Your task to perform on an android device: turn on wifi Image 0: 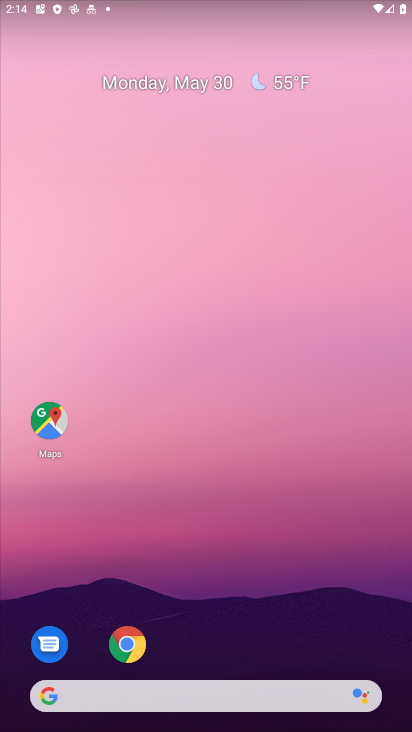
Step 0: drag from (304, 637) to (286, 142)
Your task to perform on an android device: turn on wifi Image 1: 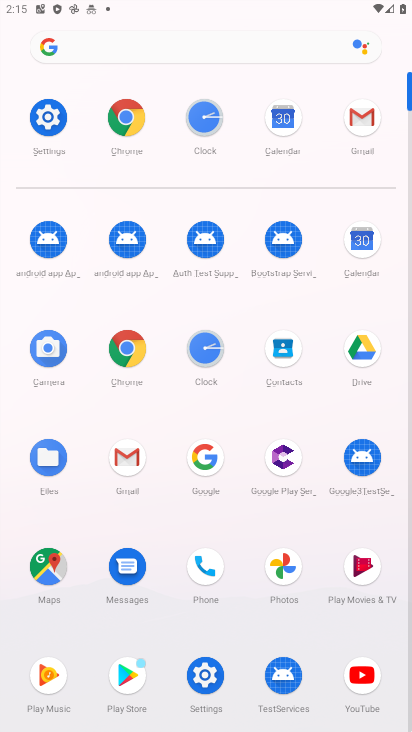
Step 1: click (47, 141)
Your task to perform on an android device: turn on wifi Image 2: 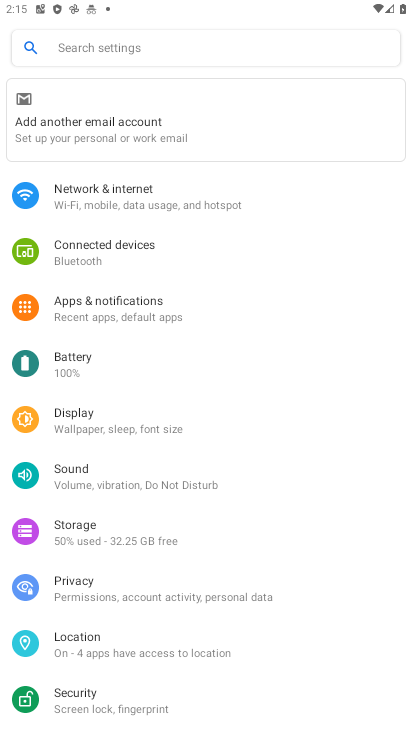
Step 2: click (120, 200)
Your task to perform on an android device: turn on wifi Image 3: 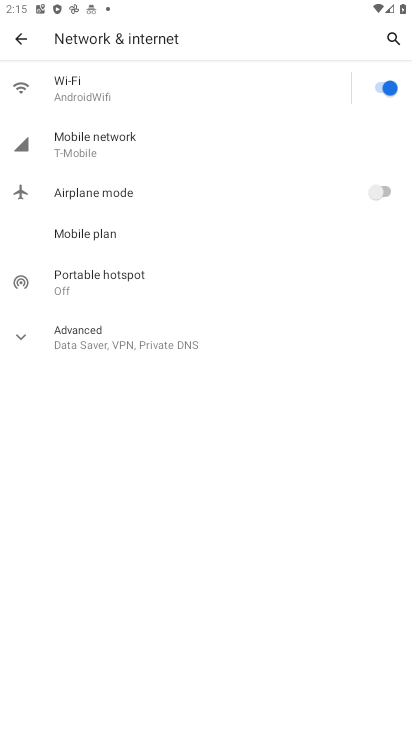
Step 3: task complete